Your task to perform on an android device: Search for Mexican restaurants on Maps Image 0: 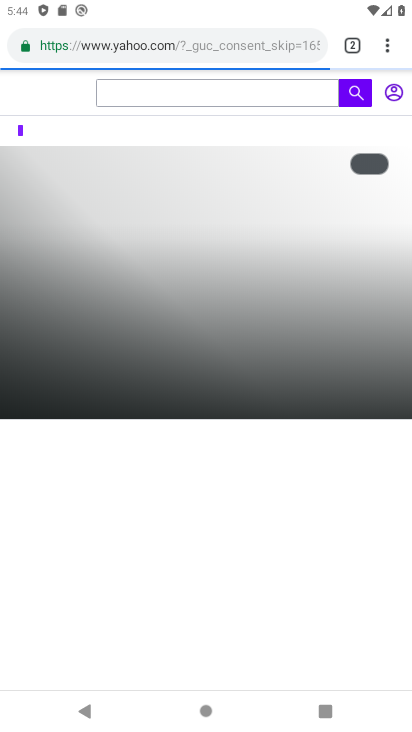
Step 0: press home button
Your task to perform on an android device: Search for Mexican restaurants on Maps Image 1: 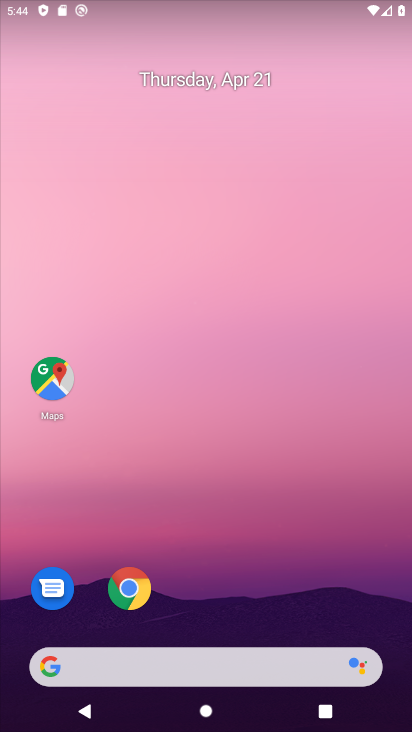
Step 1: click (63, 379)
Your task to perform on an android device: Search for Mexican restaurants on Maps Image 2: 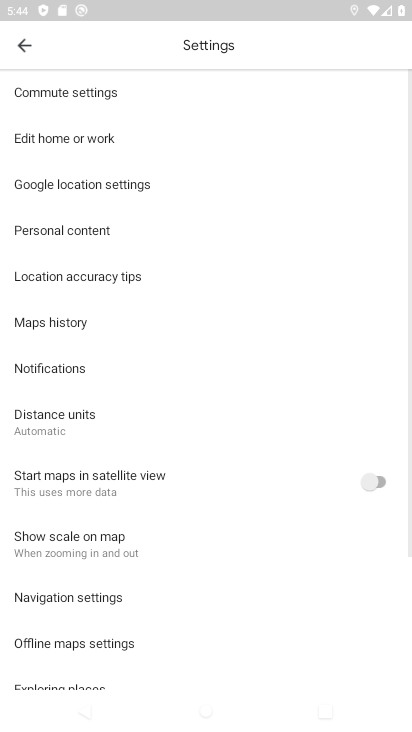
Step 2: click (24, 41)
Your task to perform on an android device: Search for Mexican restaurants on Maps Image 3: 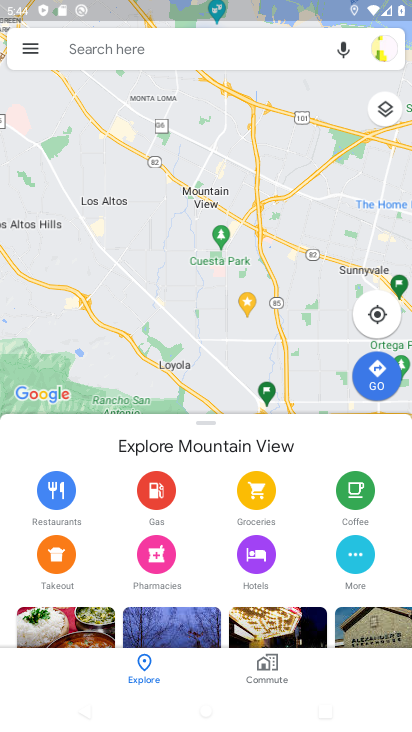
Step 3: click (113, 45)
Your task to perform on an android device: Search for Mexican restaurants on Maps Image 4: 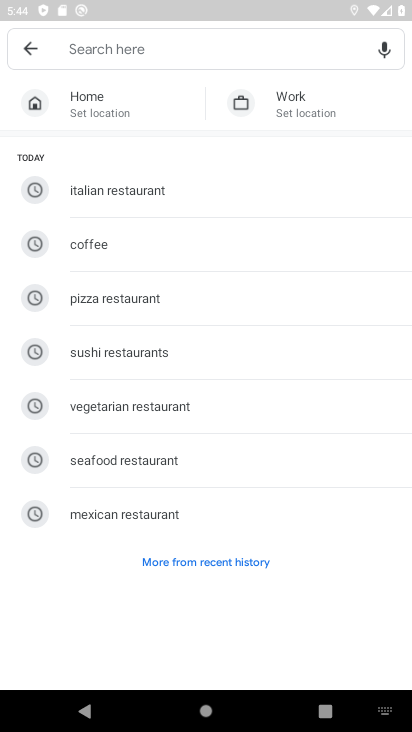
Step 4: click (145, 514)
Your task to perform on an android device: Search for Mexican restaurants on Maps Image 5: 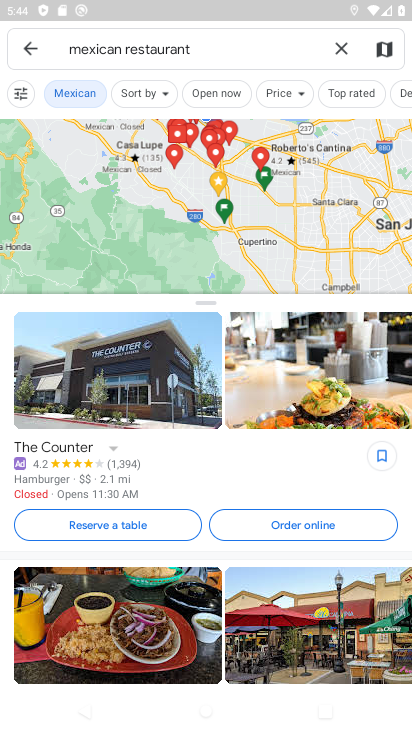
Step 5: task complete